Your task to perform on an android device: Show me popular games on the Play Store Image 0: 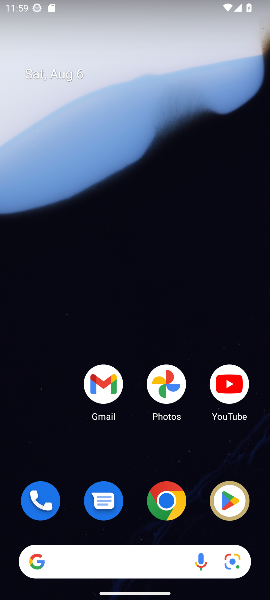
Step 0: click (218, 502)
Your task to perform on an android device: Show me popular games on the Play Store Image 1: 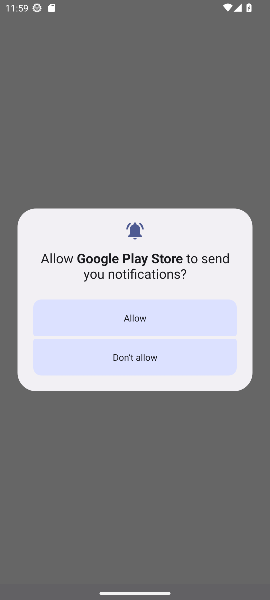
Step 1: click (127, 320)
Your task to perform on an android device: Show me popular games on the Play Store Image 2: 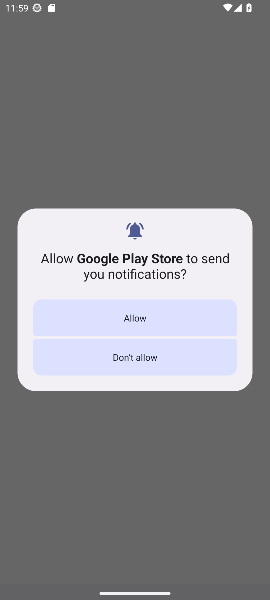
Step 2: click (127, 320)
Your task to perform on an android device: Show me popular games on the Play Store Image 3: 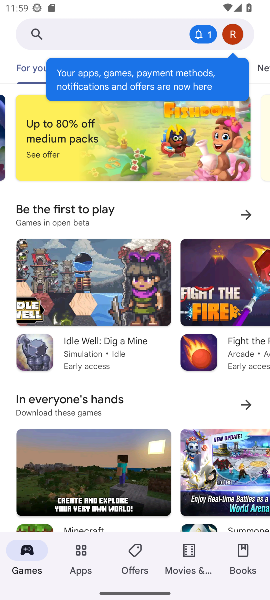
Step 3: task complete